Your task to perform on an android device: snooze an email in the gmail app Image 0: 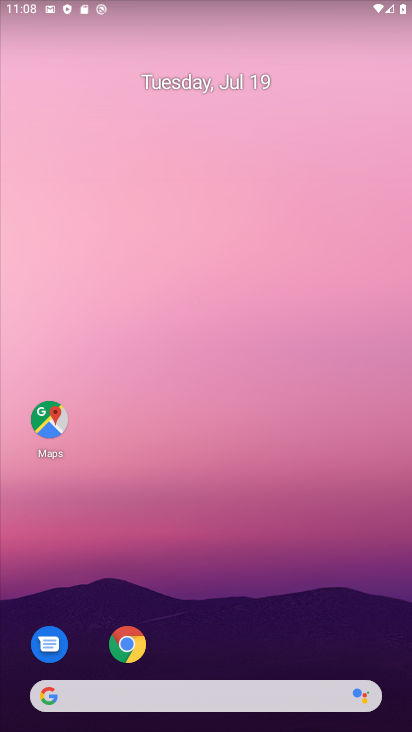
Step 0: drag from (210, 643) to (249, 136)
Your task to perform on an android device: snooze an email in the gmail app Image 1: 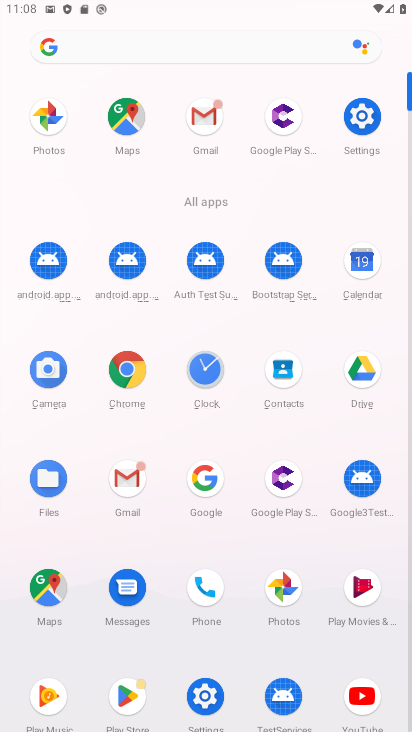
Step 1: click (131, 477)
Your task to perform on an android device: snooze an email in the gmail app Image 2: 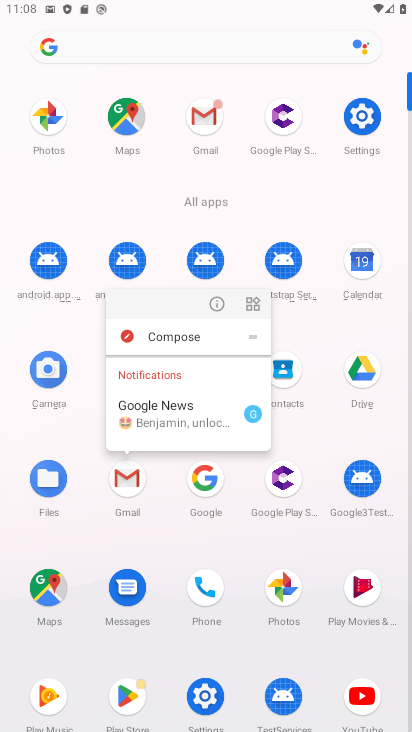
Step 2: click (216, 293)
Your task to perform on an android device: snooze an email in the gmail app Image 3: 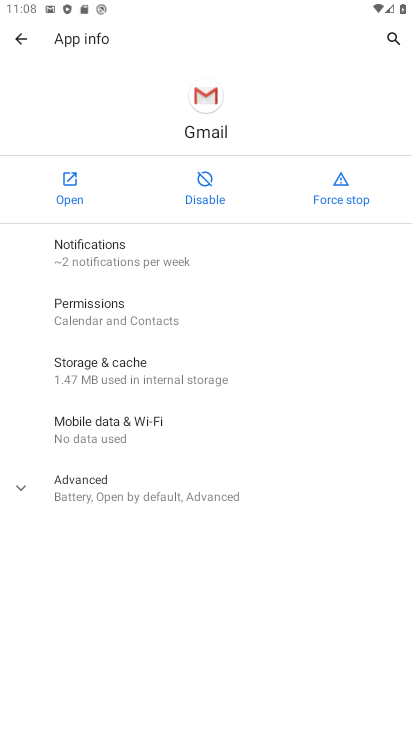
Step 3: click (50, 182)
Your task to perform on an android device: snooze an email in the gmail app Image 4: 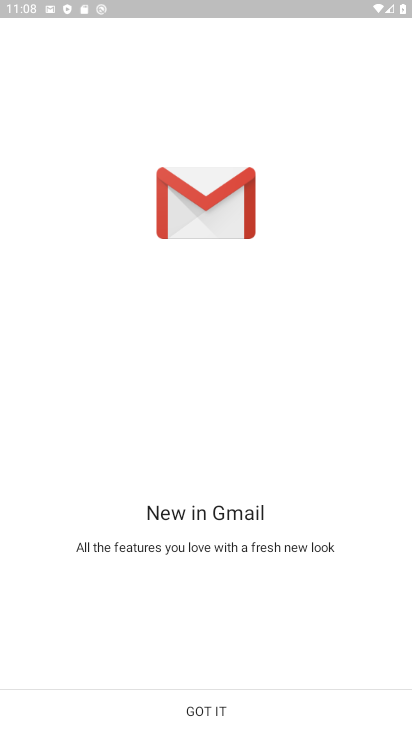
Step 4: click (207, 712)
Your task to perform on an android device: snooze an email in the gmail app Image 5: 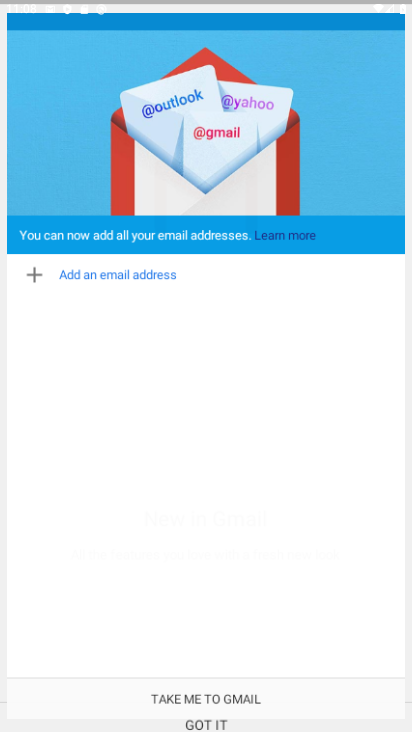
Step 5: drag from (224, 622) to (227, 332)
Your task to perform on an android device: snooze an email in the gmail app Image 6: 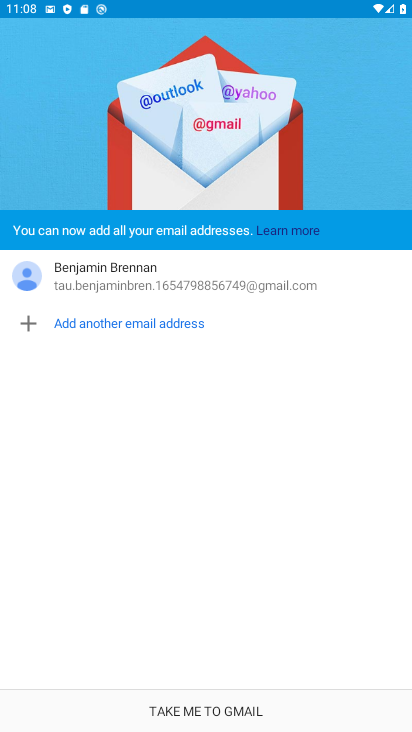
Step 6: click (198, 708)
Your task to perform on an android device: snooze an email in the gmail app Image 7: 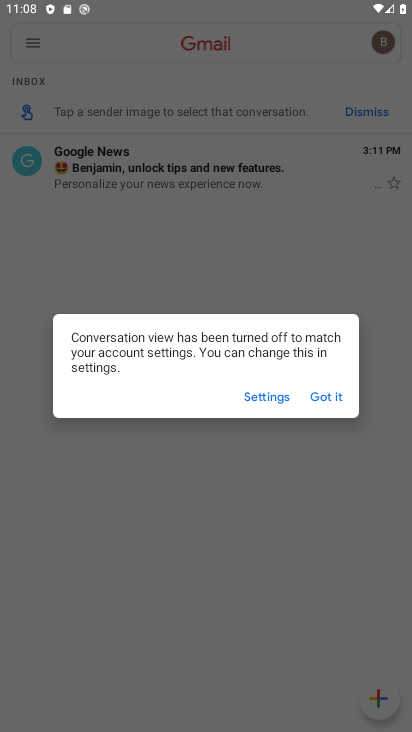
Step 7: click (322, 397)
Your task to perform on an android device: snooze an email in the gmail app Image 8: 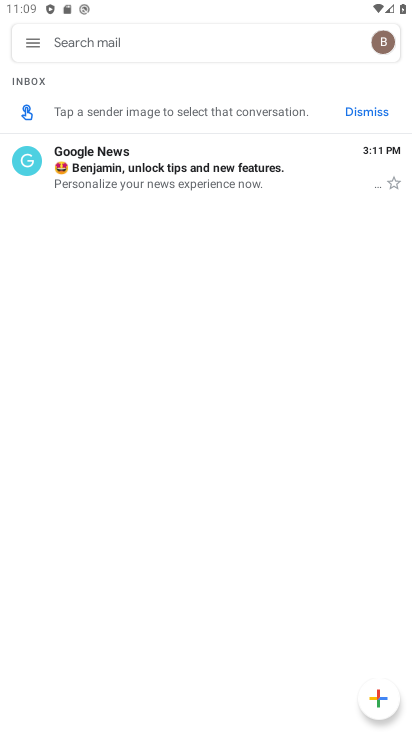
Step 8: click (25, 42)
Your task to perform on an android device: snooze an email in the gmail app Image 9: 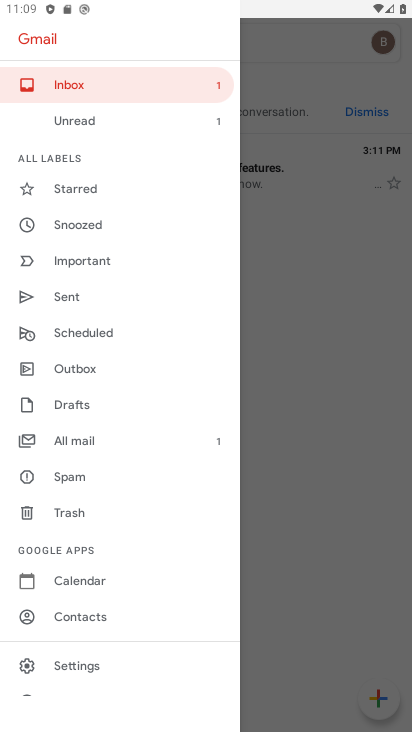
Step 9: click (63, 475)
Your task to perform on an android device: snooze an email in the gmail app Image 10: 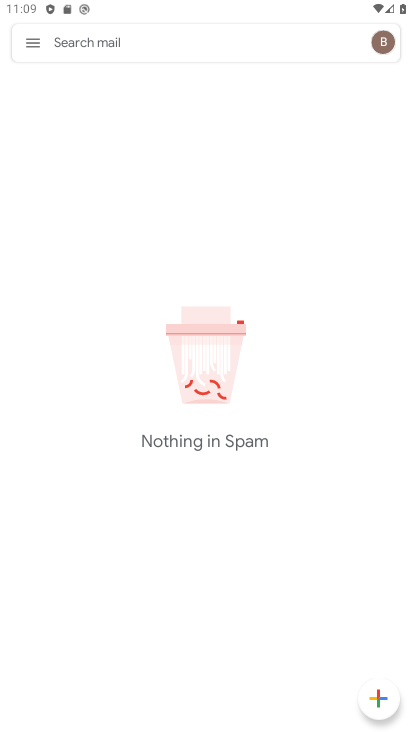
Step 10: click (215, 131)
Your task to perform on an android device: snooze an email in the gmail app Image 11: 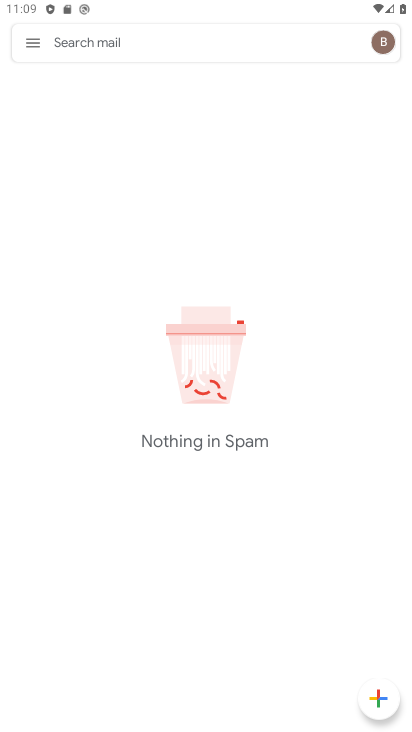
Step 11: task complete